Your task to perform on an android device: turn pop-ups on in chrome Image 0: 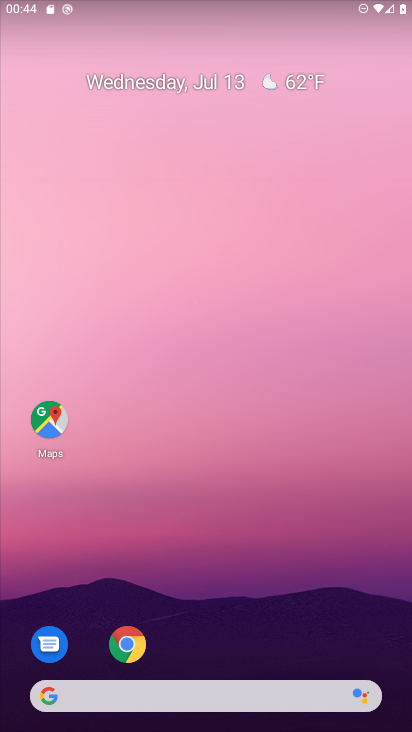
Step 0: click (136, 640)
Your task to perform on an android device: turn pop-ups on in chrome Image 1: 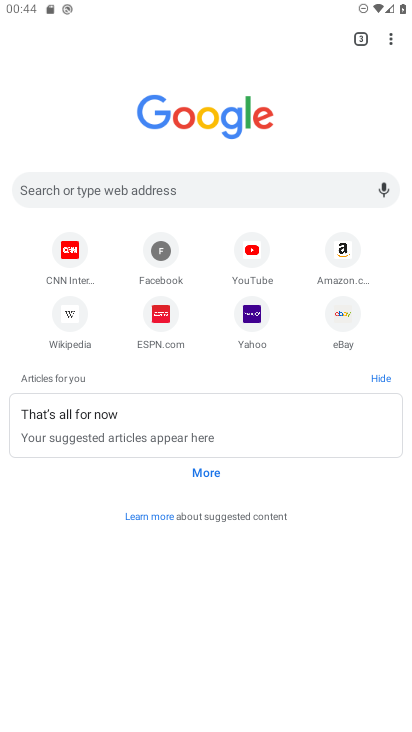
Step 1: click (391, 39)
Your task to perform on an android device: turn pop-ups on in chrome Image 2: 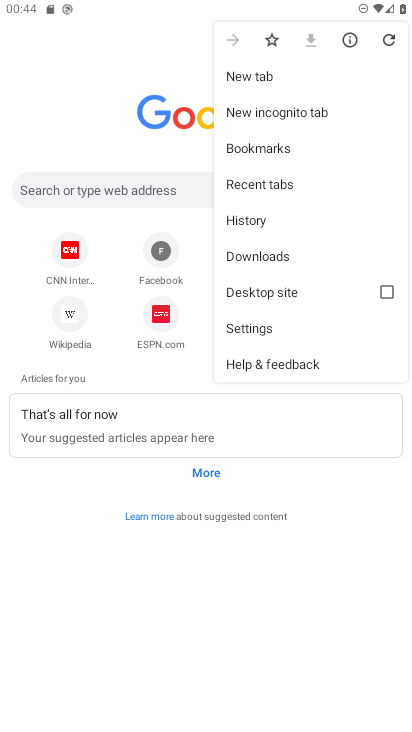
Step 2: click (268, 322)
Your task to perform on an android device: turn pop-ups on in chrome Image 3: 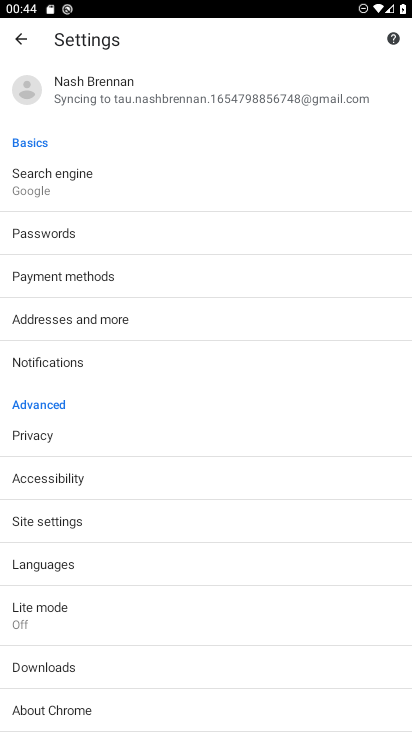
Step 3: click (83, 513)
Your task to perform on an android device: turn pop-ups on in chrome Image 4: 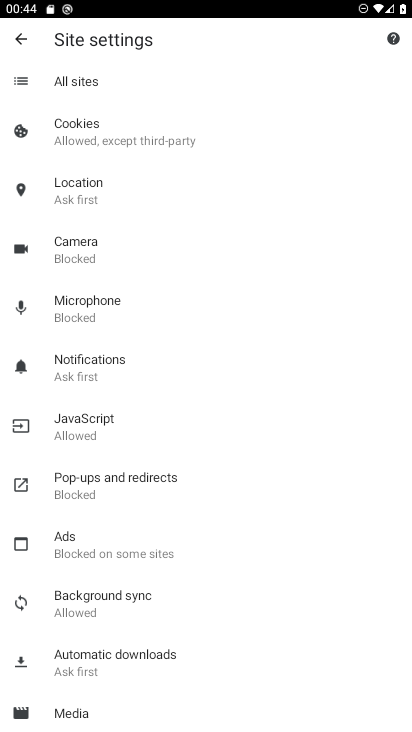
Step 4: click (161, 480)
Your task to perform on an android device: turn pop-ups on in chrome Image 5: 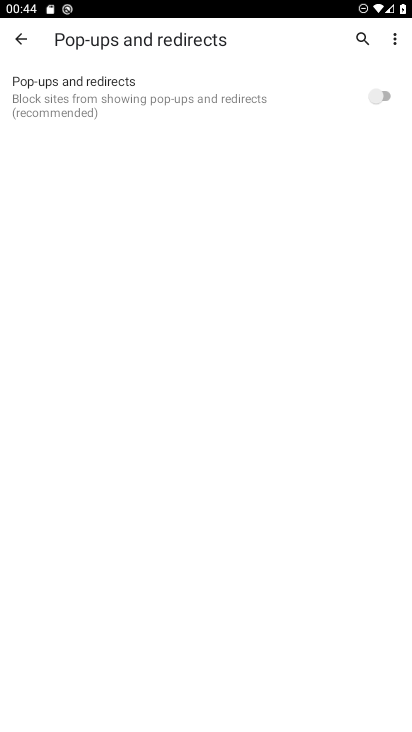
Step 5: click (360, 100)
Your task to perform on an android device: turn pop-ups on in chrome Image 6: 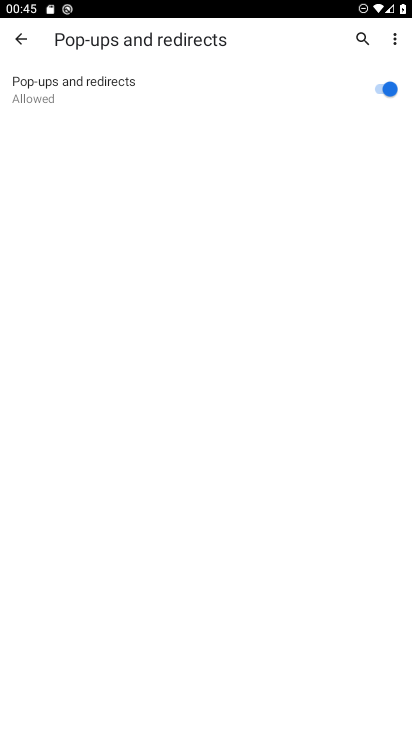
Step 6: task complete